Your task to perform on an android device: Open internet settings Image 0: 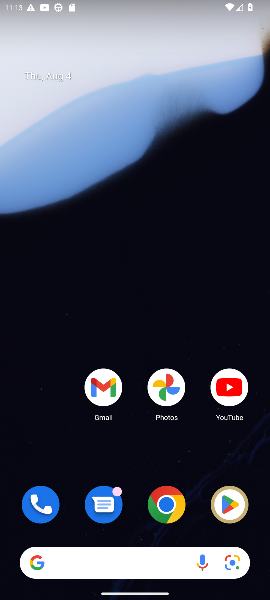
Step 0: drag from (142, 472) to (135, 84)
Your task to perform on an android device: Open internet settings Image 1: 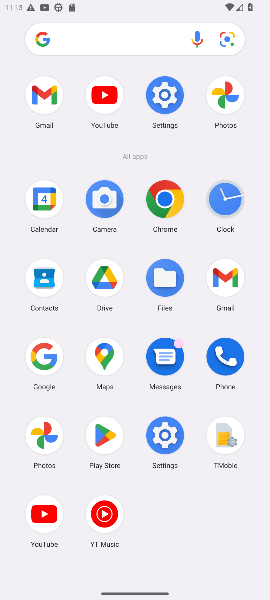
Step 1: click (159, 92)
Your task to perform on an android device: Open internet settings Image 2: 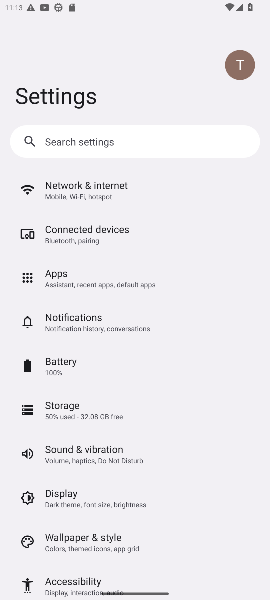
Step 2: click (102, 190)
Your task to perform on an android device: Open internet settings Image 3: 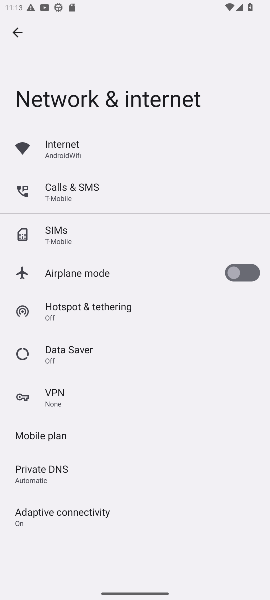
Step 3: click (83, 149)
Your task to perform on an android device: Open internet settings Image 4: 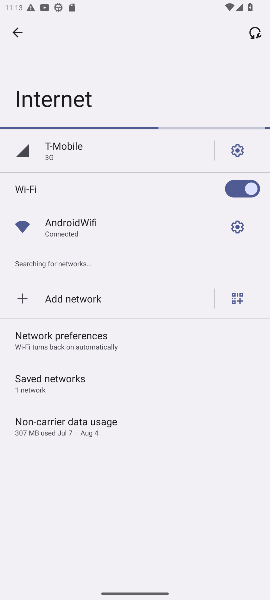
Step 4: task complete